Your task to perform on an android device: Do I have any events today? Image 0: 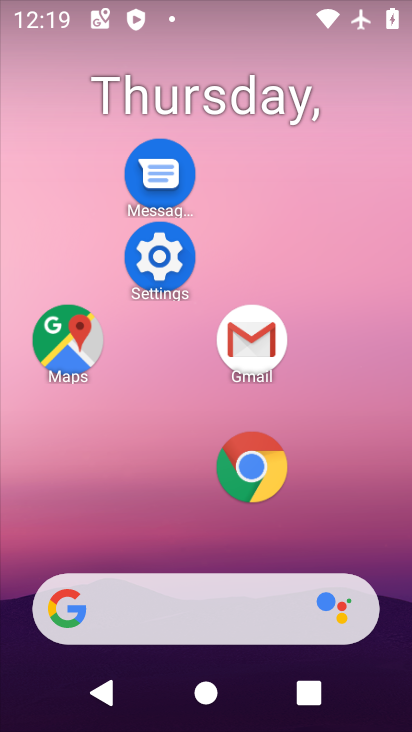
Step 0: click (285, 81)
Your task to perform on an android device: Do I have any events today? Image 1: 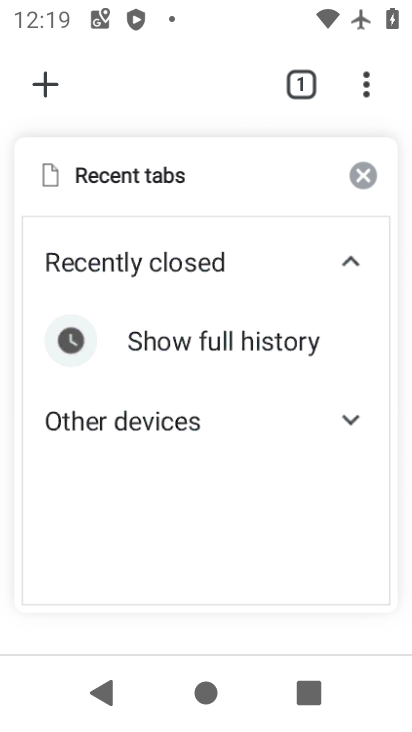
Step 1: press home button
Your task to perform on an android device: Do I have any events today? Image 2: 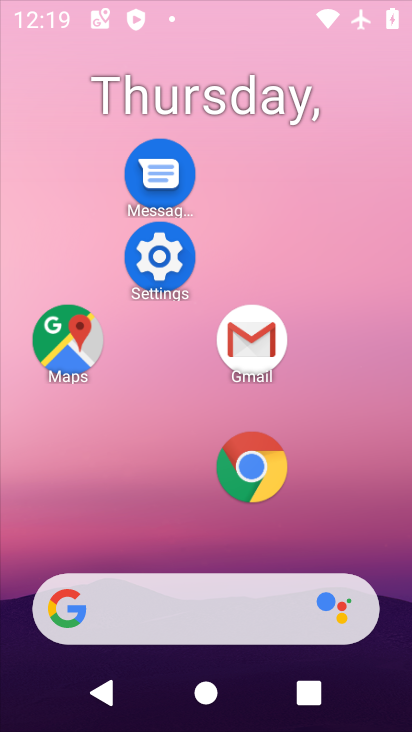
Step 2: drag from (166, 557) to (232, 66)
Your task to perform on an android device: Do I have any events today? Image 3: 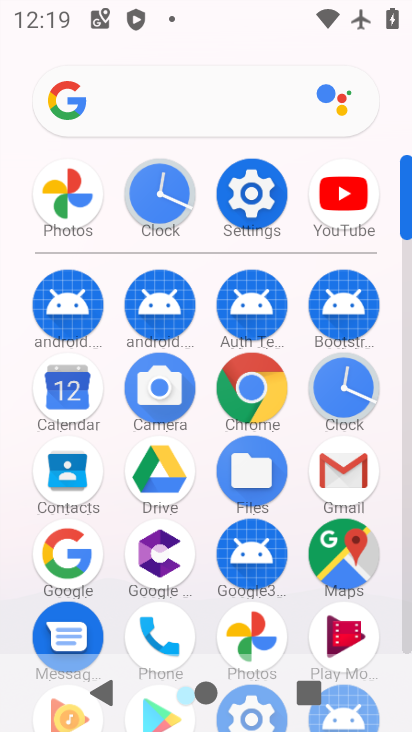
Step 3: click (59, 397)
Your task to perform on an android device: Do I have any events today? Image 4: 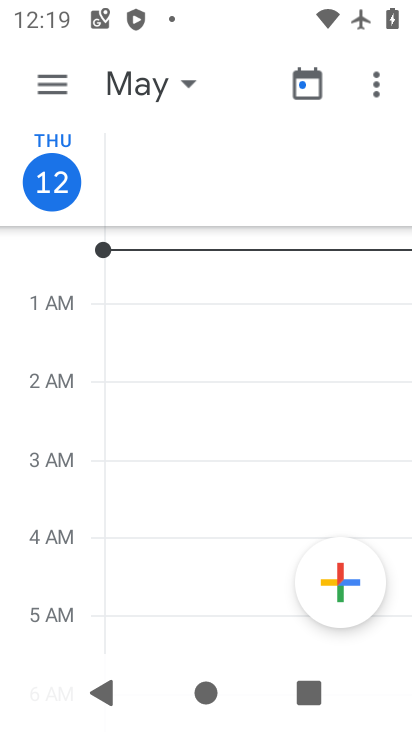
Step 4: click (181, 76)
Your task to perform on an android device: Do I have any events today? Image 5: 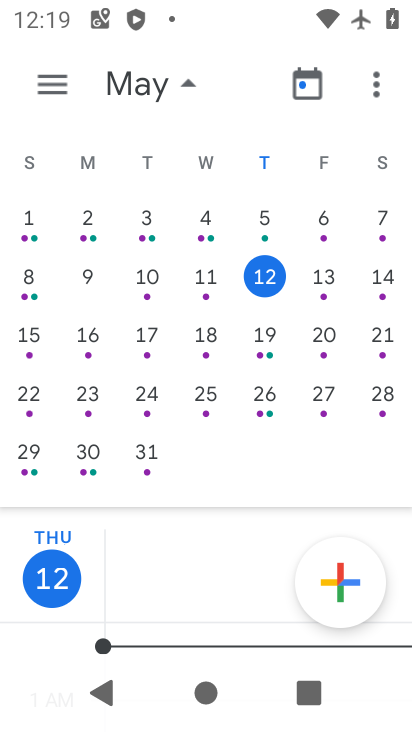
Step 5: click (206, 290)
Your task to perform on an android device: Do I have any events today? Image 6: 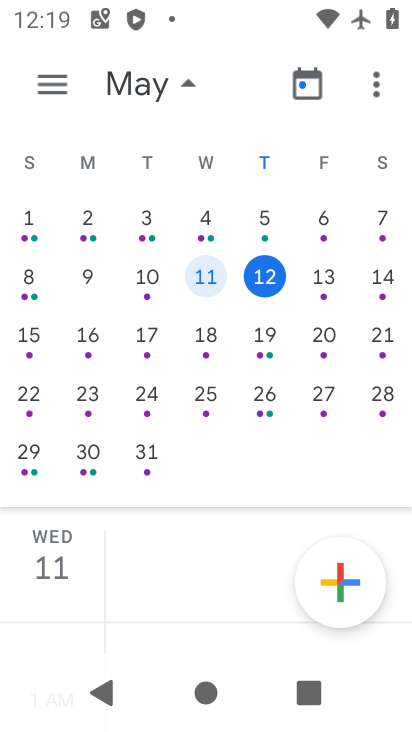
Step 6: click (274, 278)
Your task to perform on an android device: Do I have any events today? Image 7: 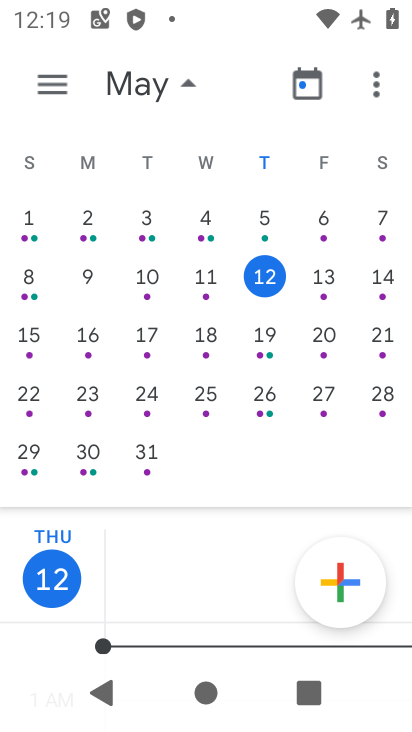
Step 7: task complete